Your task to perform on an android device: Open internet settings Image 0: 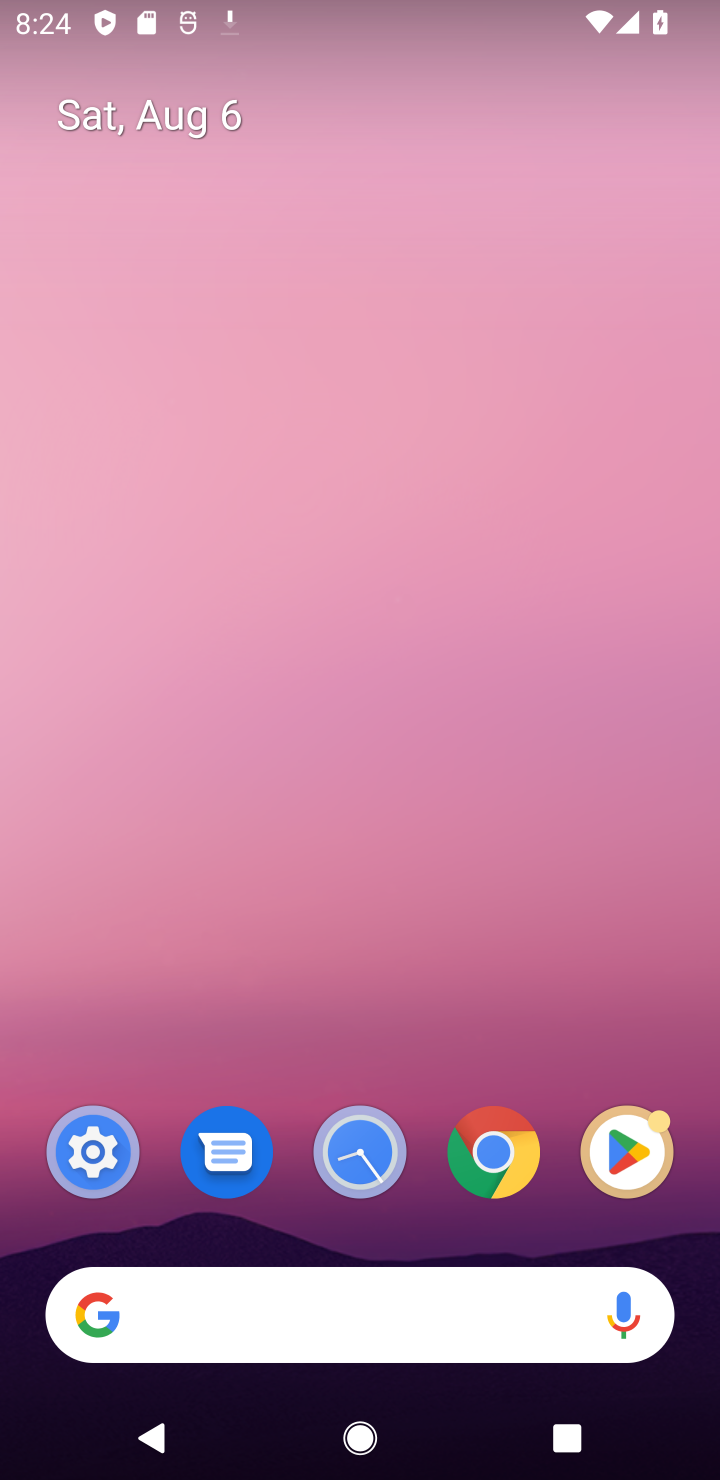
Step 0: drag from (486, 46) to (532, 810)
Your task to perform on an android device: Open internet settings Image 1: 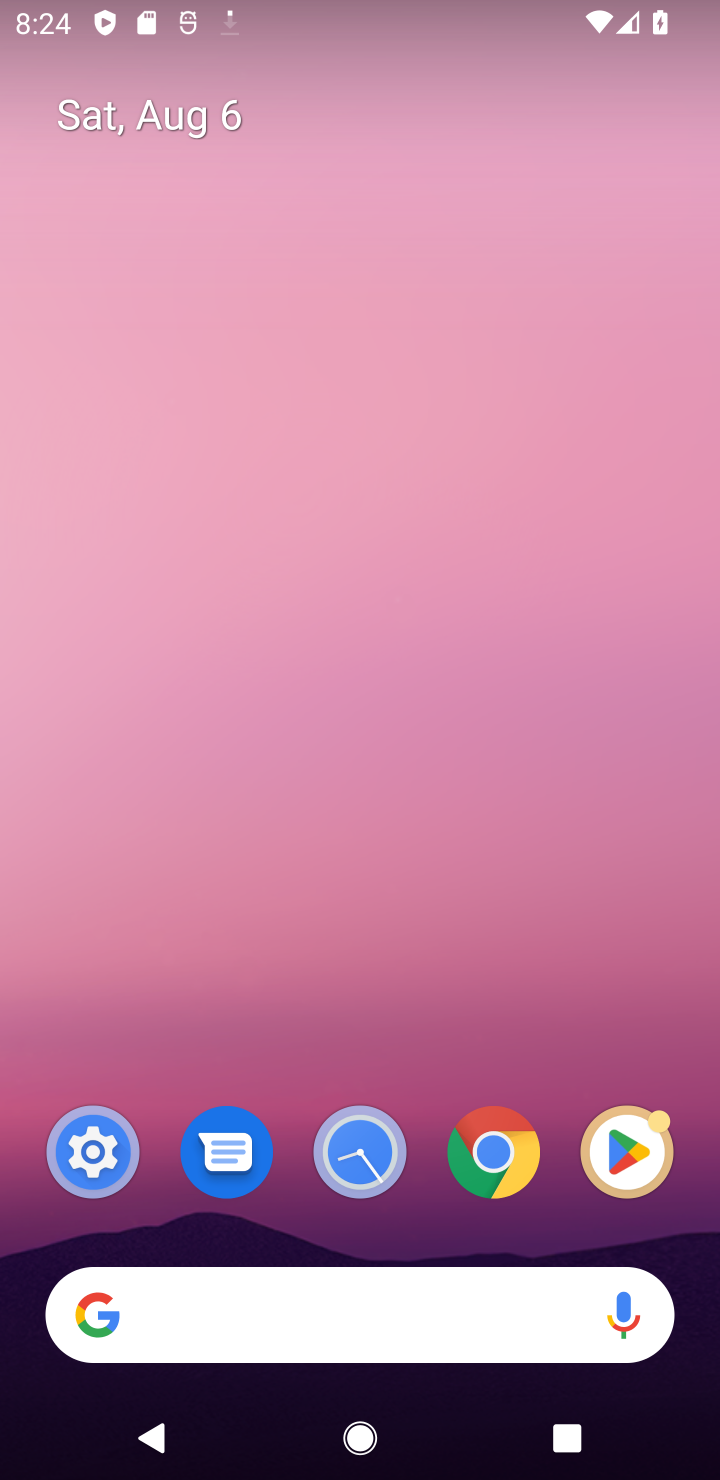
Step 1: drag from (445, 9) to (582, 1229)
Your task to perform on an android device: Open internet settings Image 2: 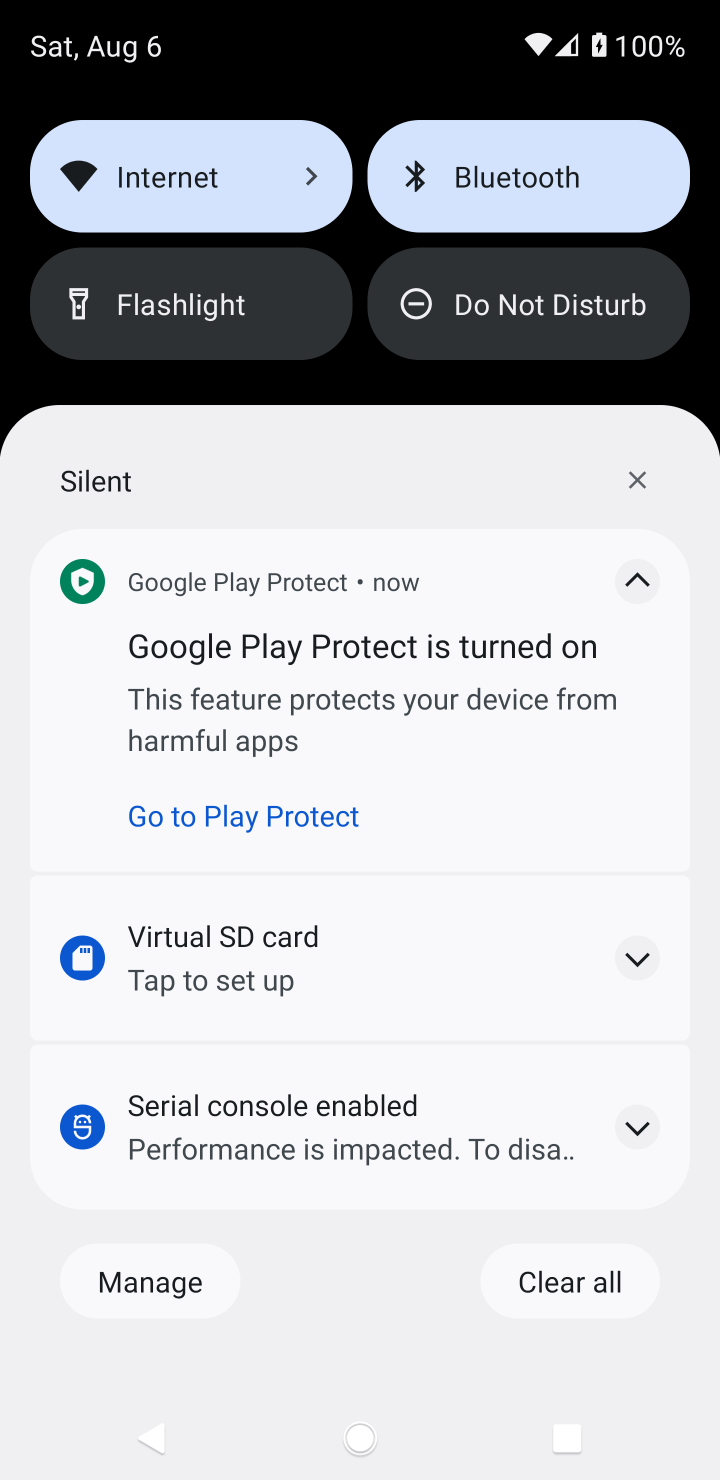
Step 2: drag from (376, 404) to (448, 932)
Your task to perform on an android device: Open internet settings Image 3: 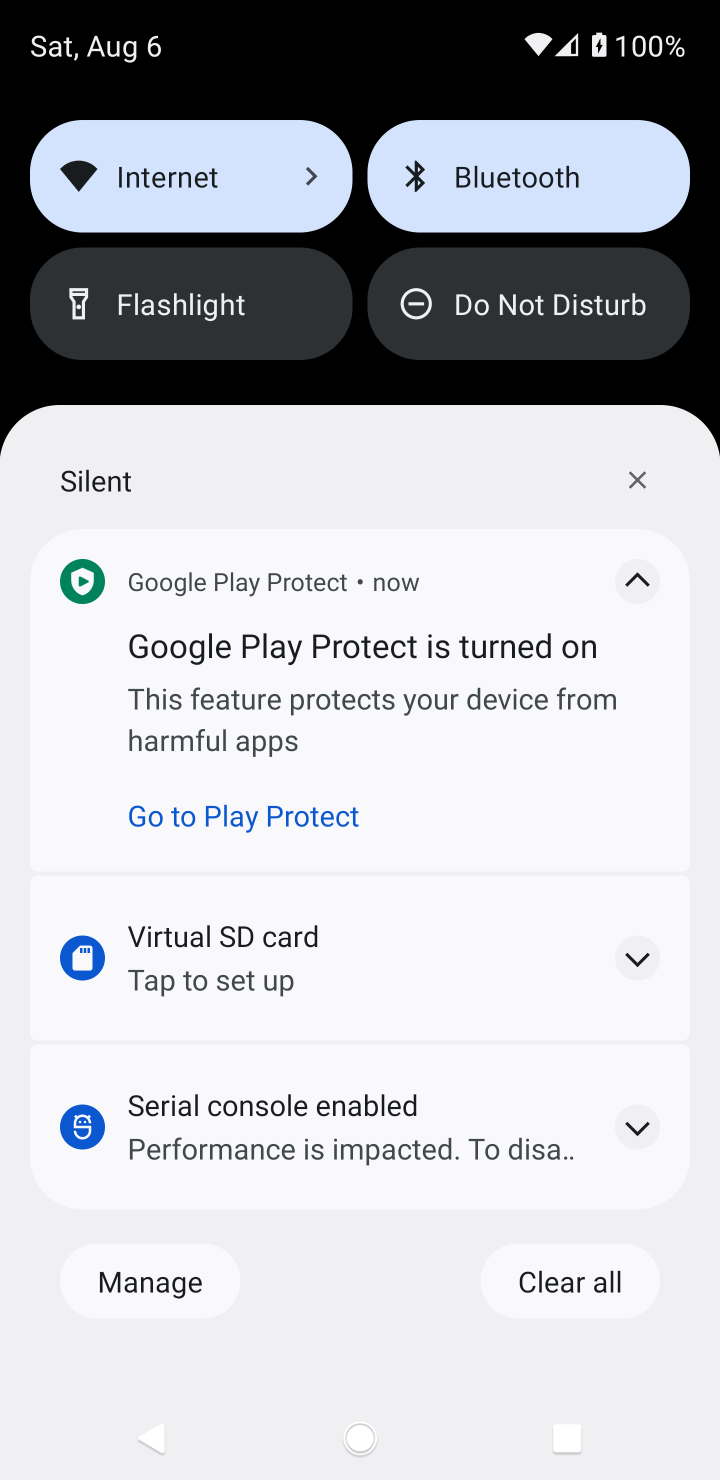
Step 3: drag from (369, 246) to (538, 1473)
Your task to perform on an android device: Open internet settings Image 4: 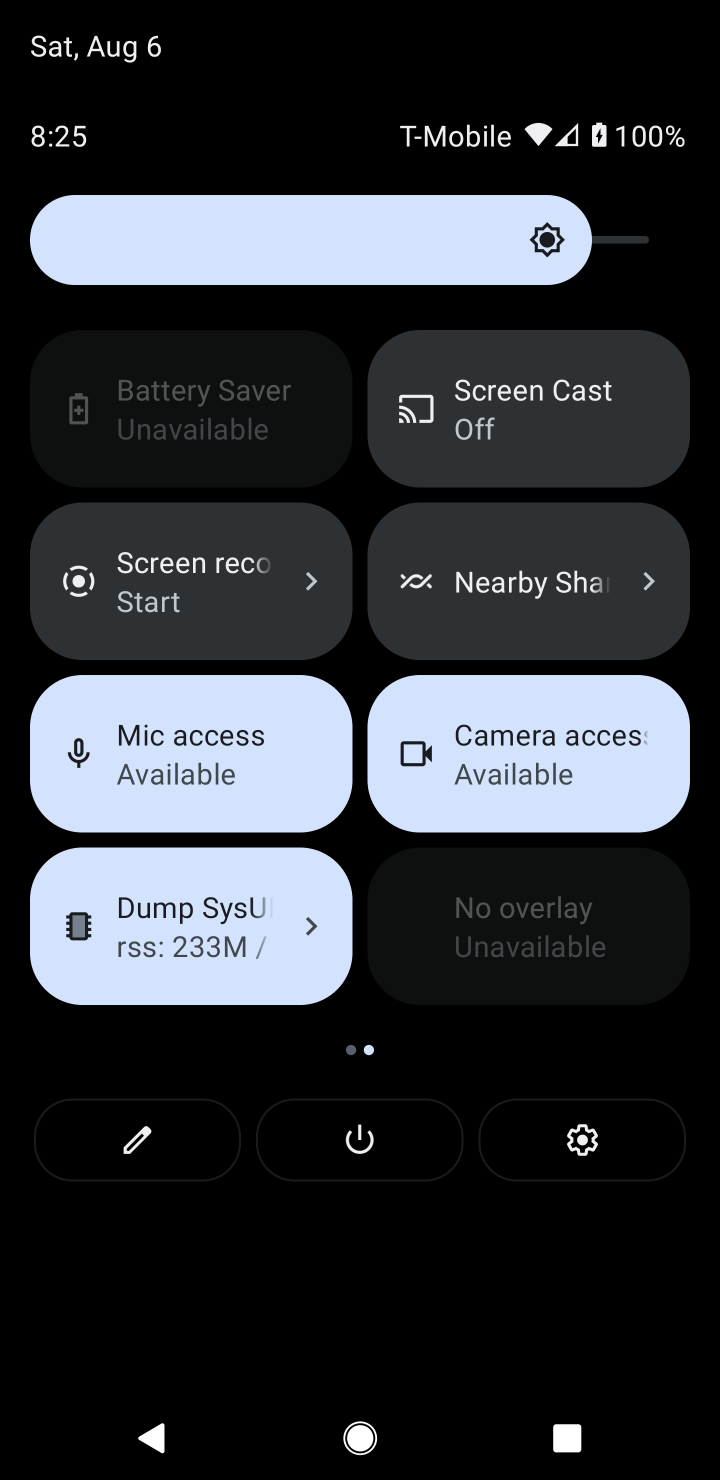
Step 4: click (586, 1141)
Your task to perform on an android device: Open internet settings Image 5: 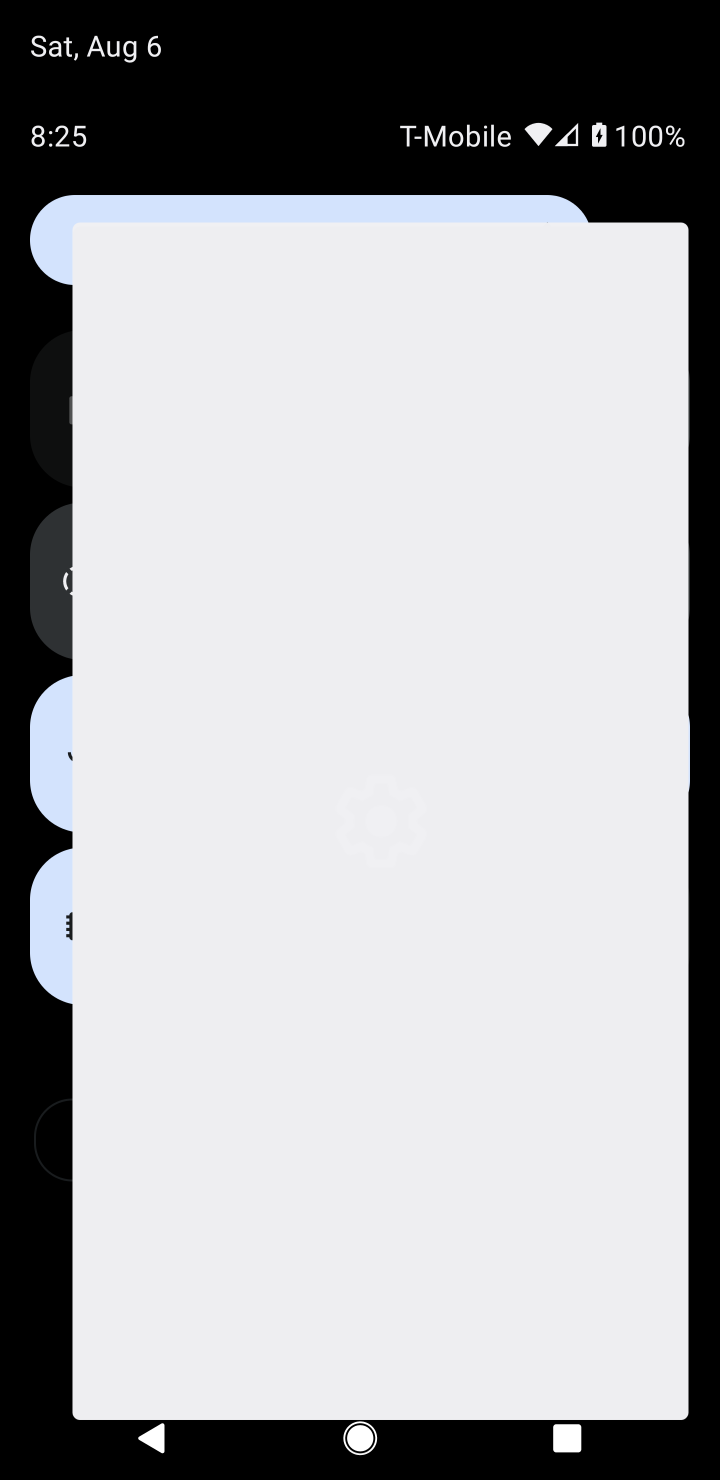
Step 5: click (586, 1141)
Your task to perform on an android device: Open internet settings Image 6: 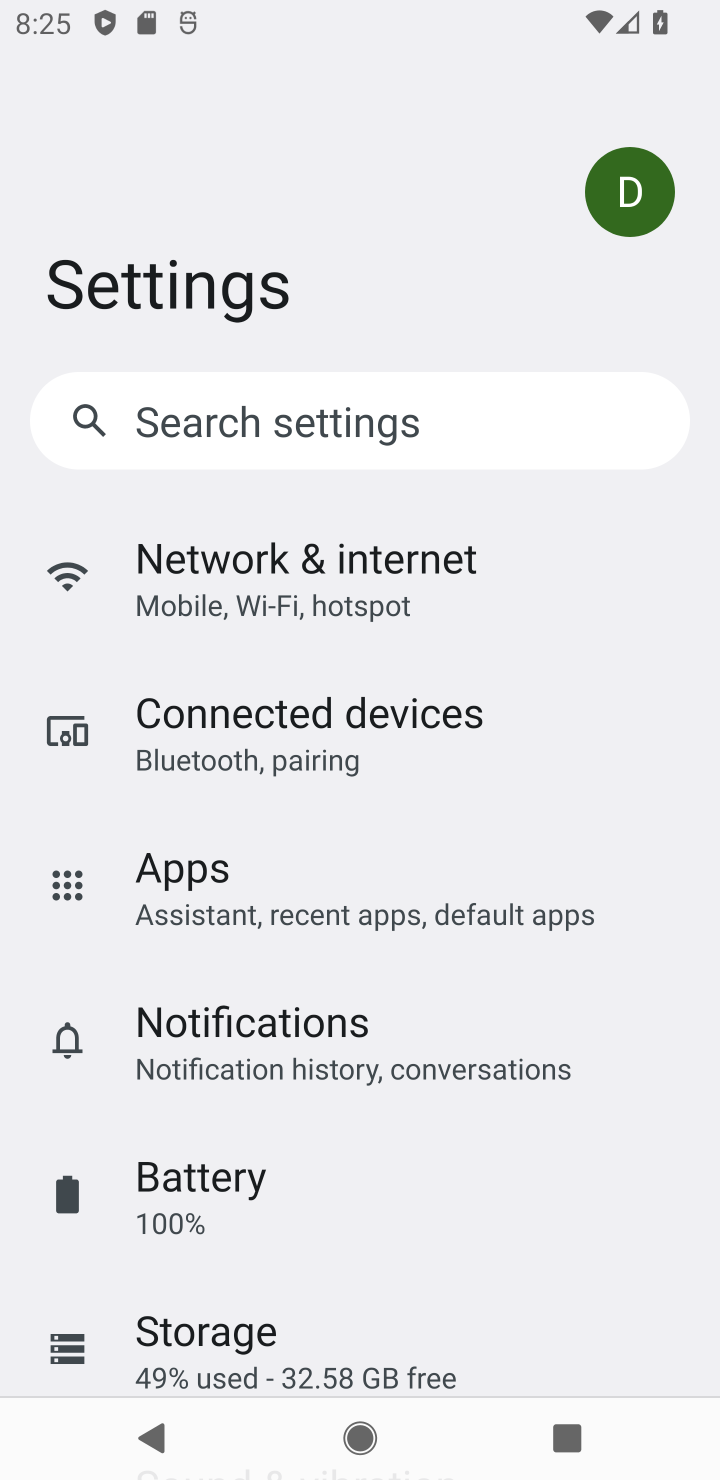
Step 6: click (365, 555)
Your task to perform on an android device: Open internet settings Image 7: 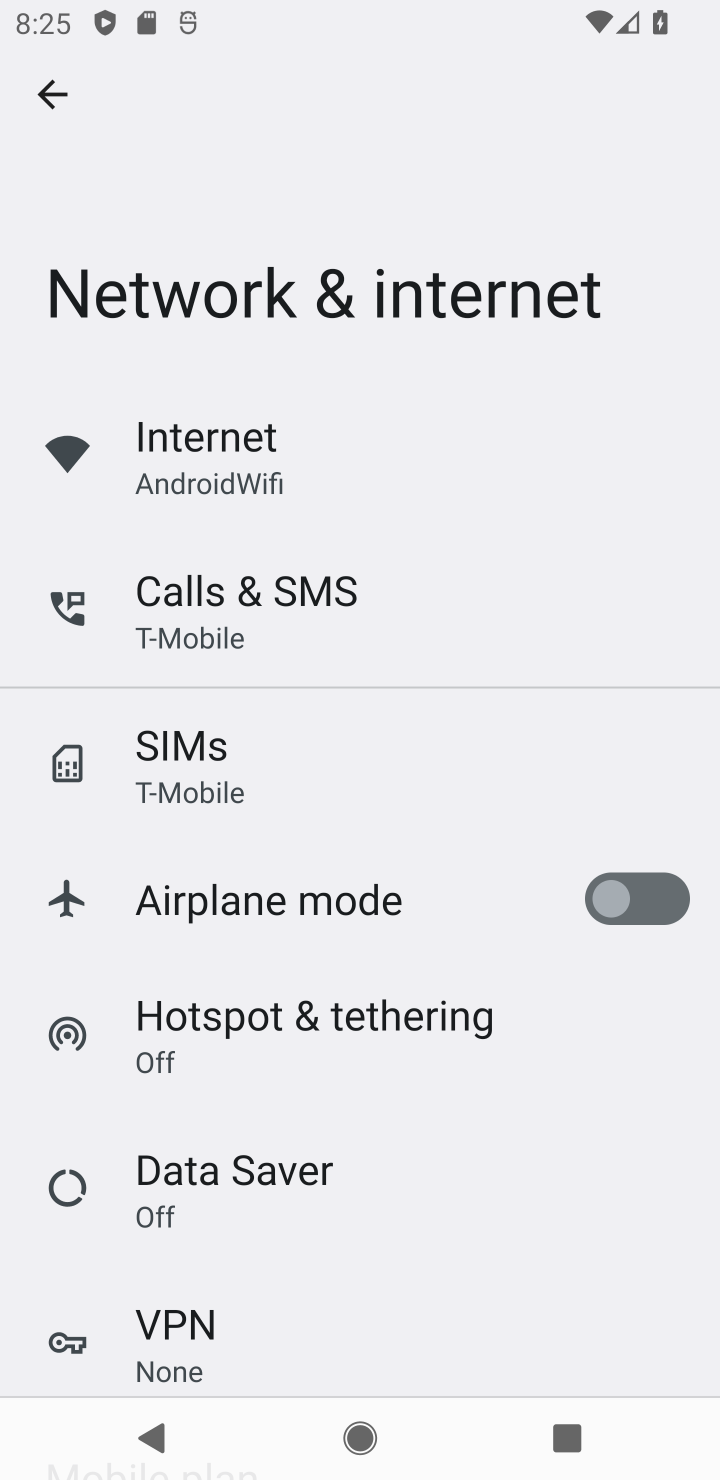
Step 7: click (305, 450)
Your task to perform on an android device: Open internet settings Image 8: 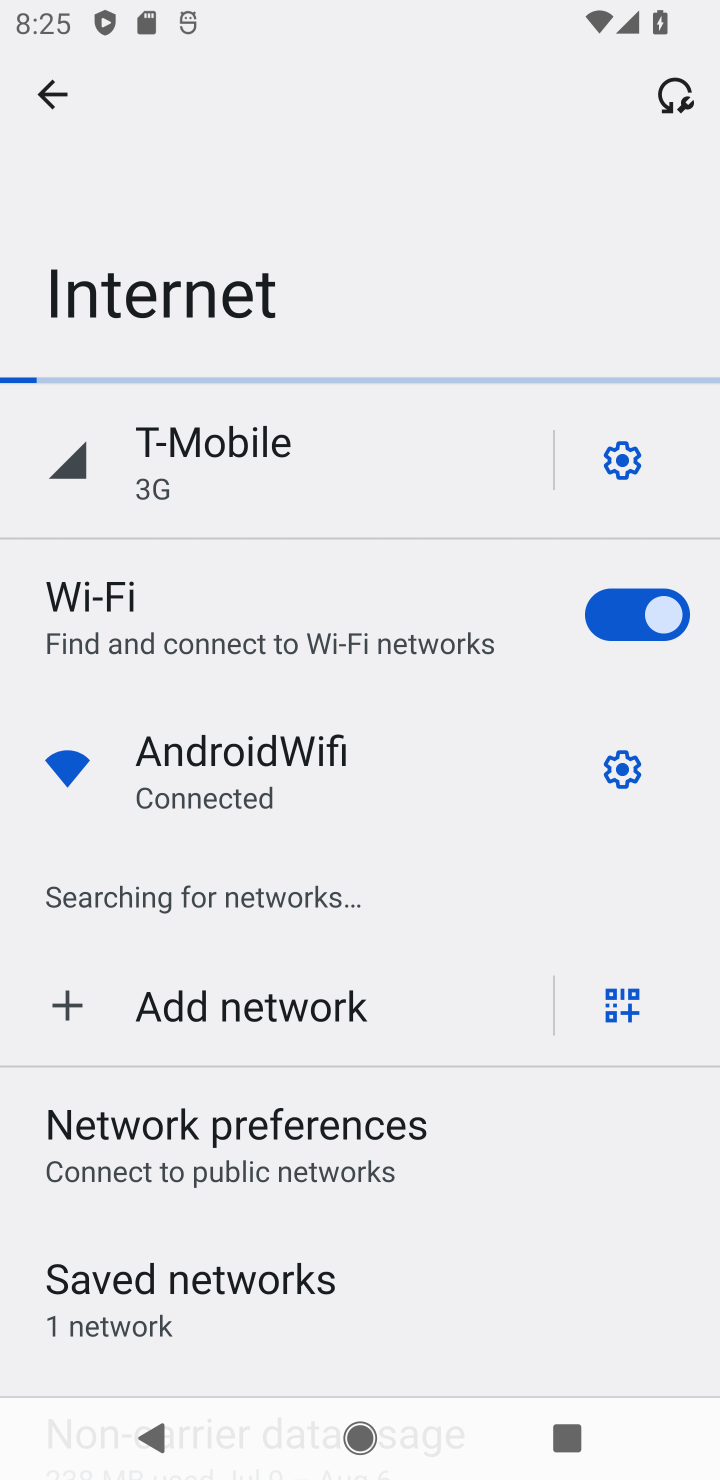
Step 8: task complete